Your task to perform on an android device: visit the assistant section in the google photos Image 0: 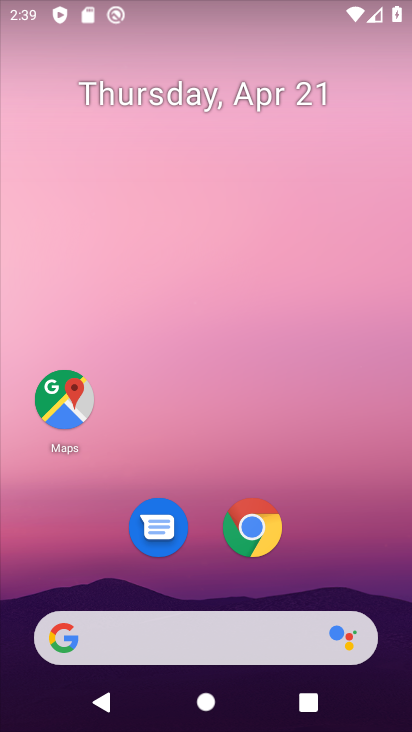
Step 0: drag from (176, 612) to (243, 156)
Your task to perform on an android device: visit the assistant section in the google photos Image 1: 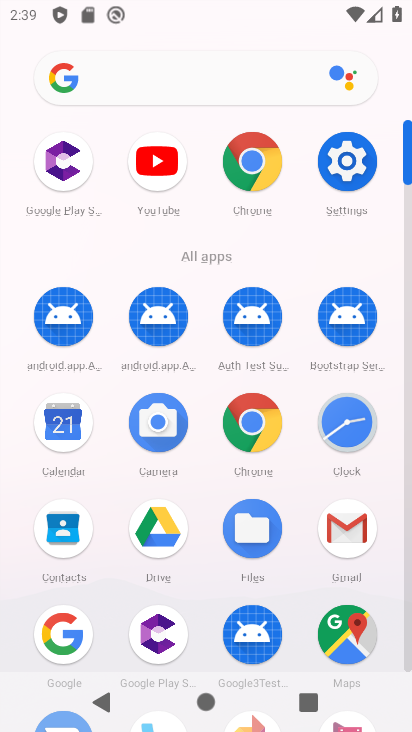
Step 1: drag from (294, 634) to (289, 231)
Your task to perform on an android device: visit the assistant section in the google photos Image 2: 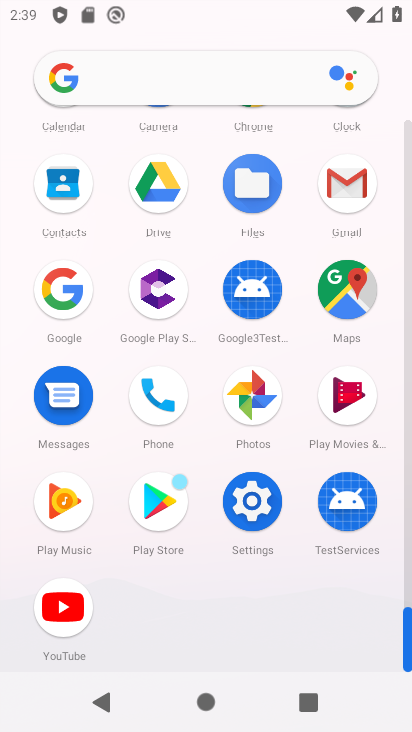
Step 2: click (247, 397)
Your task to perform on an android device: visit the assistant section in the google photos Image 3: 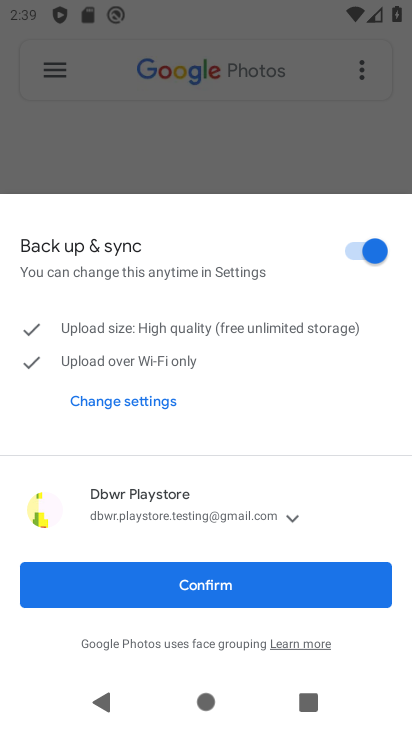
Step 3: click (197, 593)
Your task to perform on an android device: visit the assistant section in the google photos Image 4: 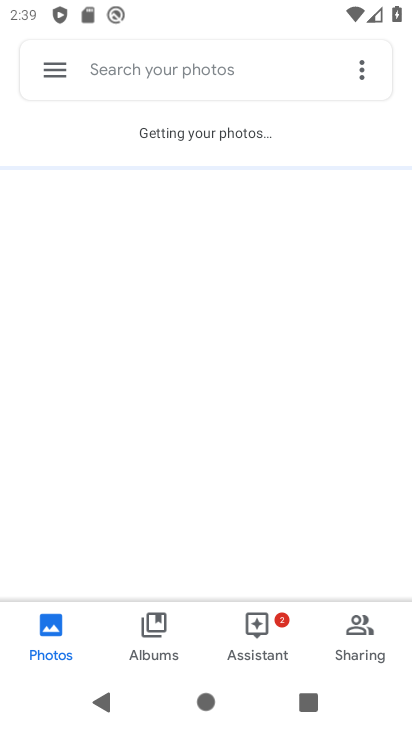
Step 4: click (254, 630)
Your task to perform on an android device: visit the assistant section in the google photos Image 5: 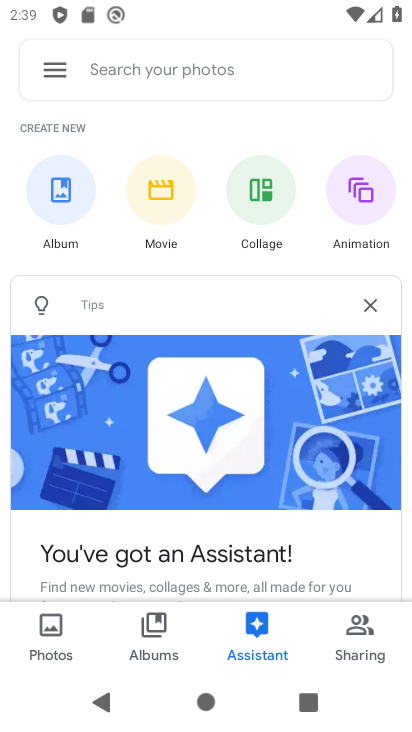
Step 5: task complete